Your task to perform on an android device: Add logitech g pro to the cart on walmart, then select checkout. Image 0: 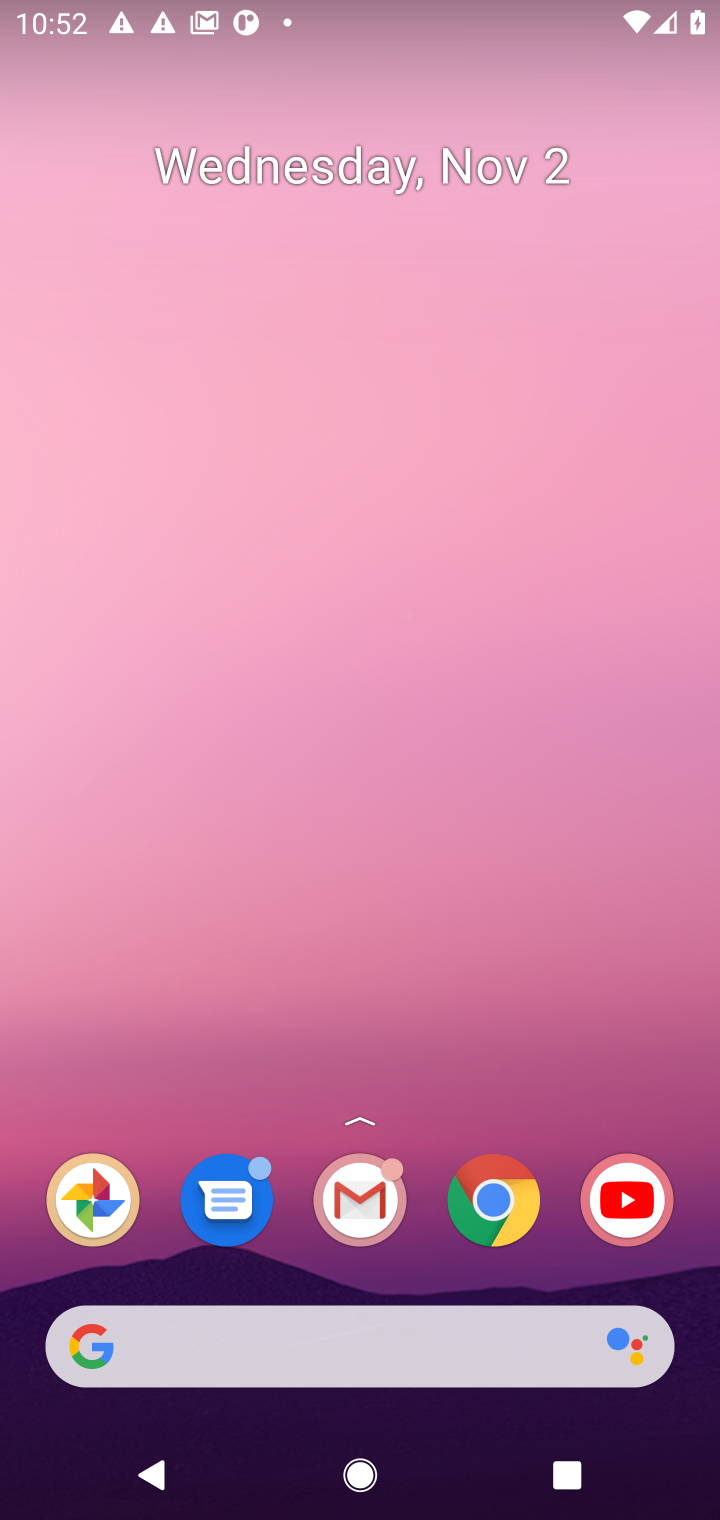
Step 0: click (499, 1172)
Your task to perform on an android device: Add logitech g pro to the cart on walmart, then select checkout. Image 1: 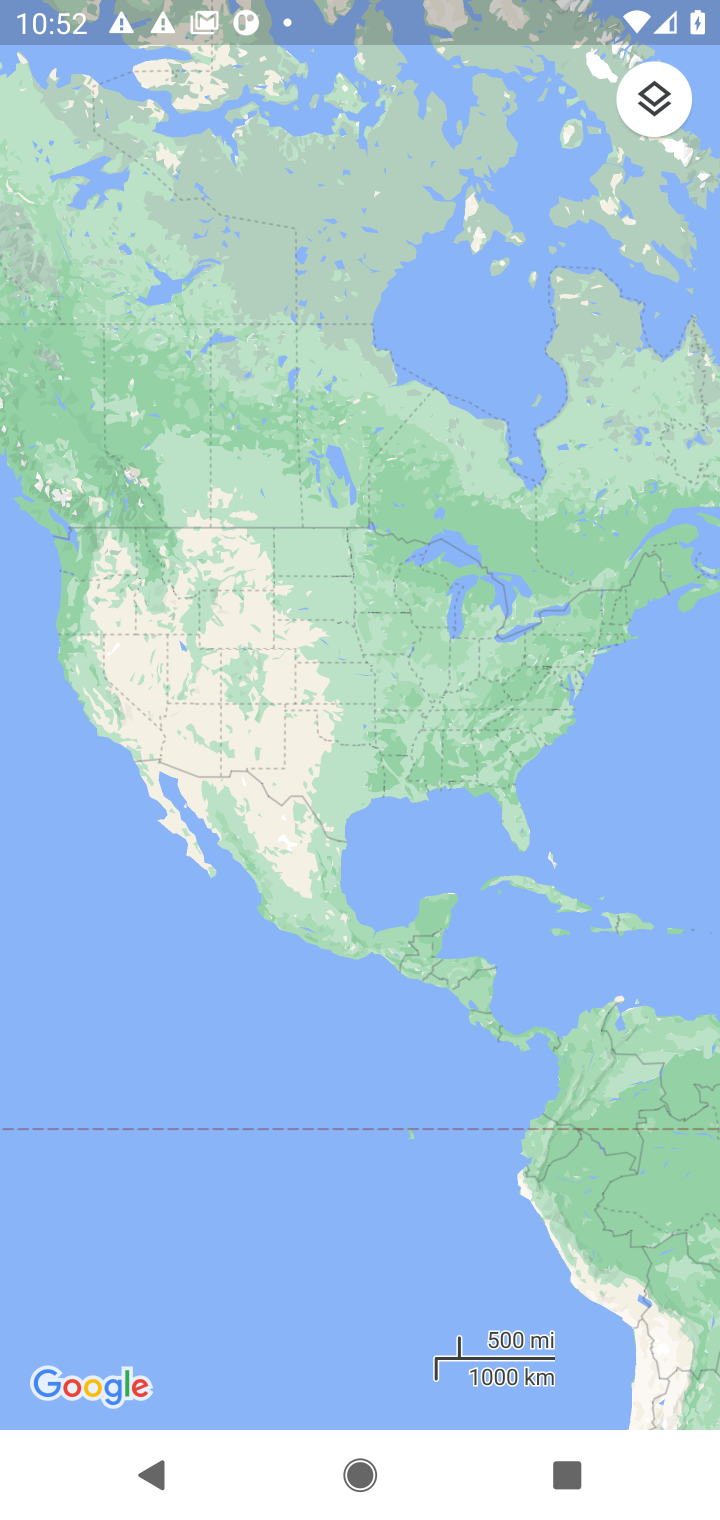
Step 1: press home button
Your task to perform on an android device: Add logitech g pro to the cart on walmart, then select checkout. Image 2: 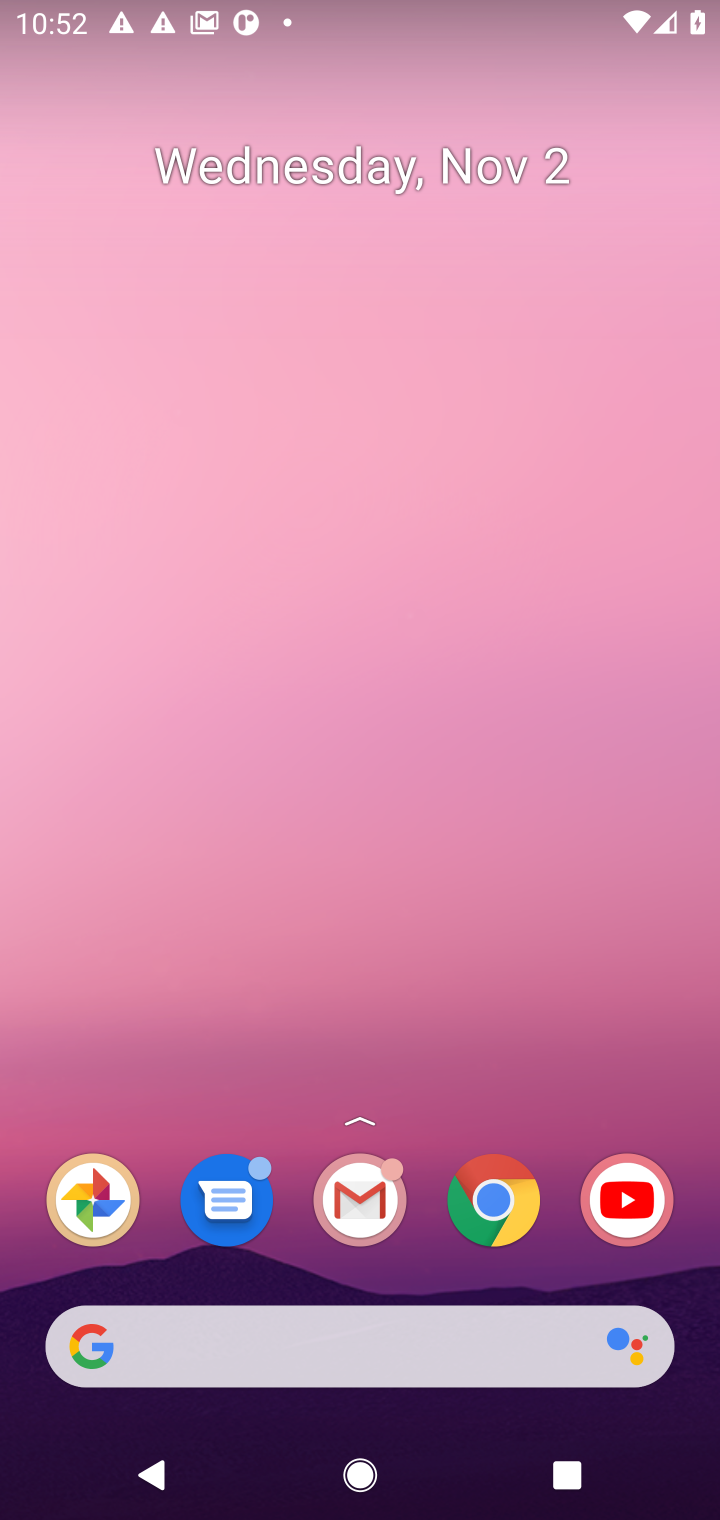
Step 2: click (519, 1178)
Your task to perform on an android device: Add logitech g pro to the cart on walmart, then select checkout. Image 3: 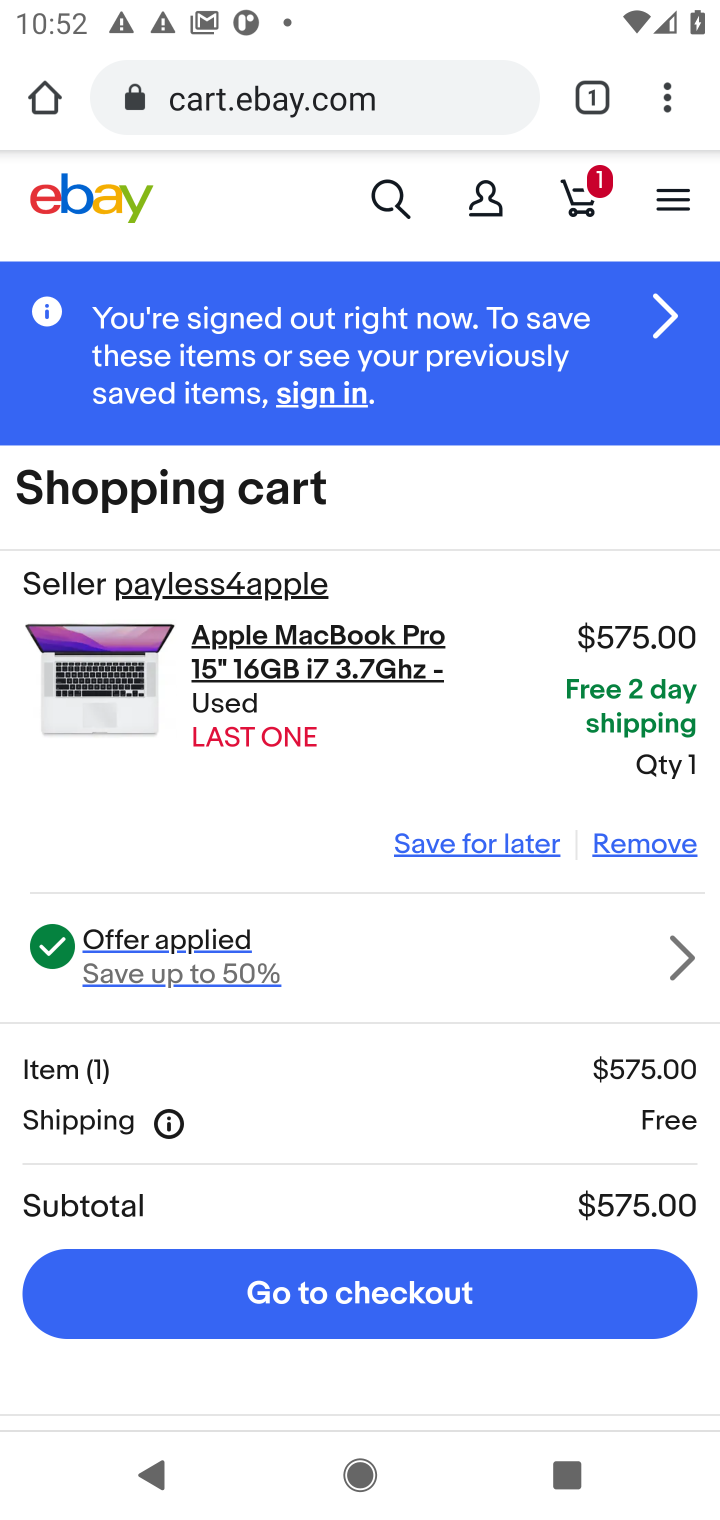
Step 3: click (445, 92)
Your task to perform on an android device: Add logitech g pro to the cart on walmart, then select checkout. Image 4: 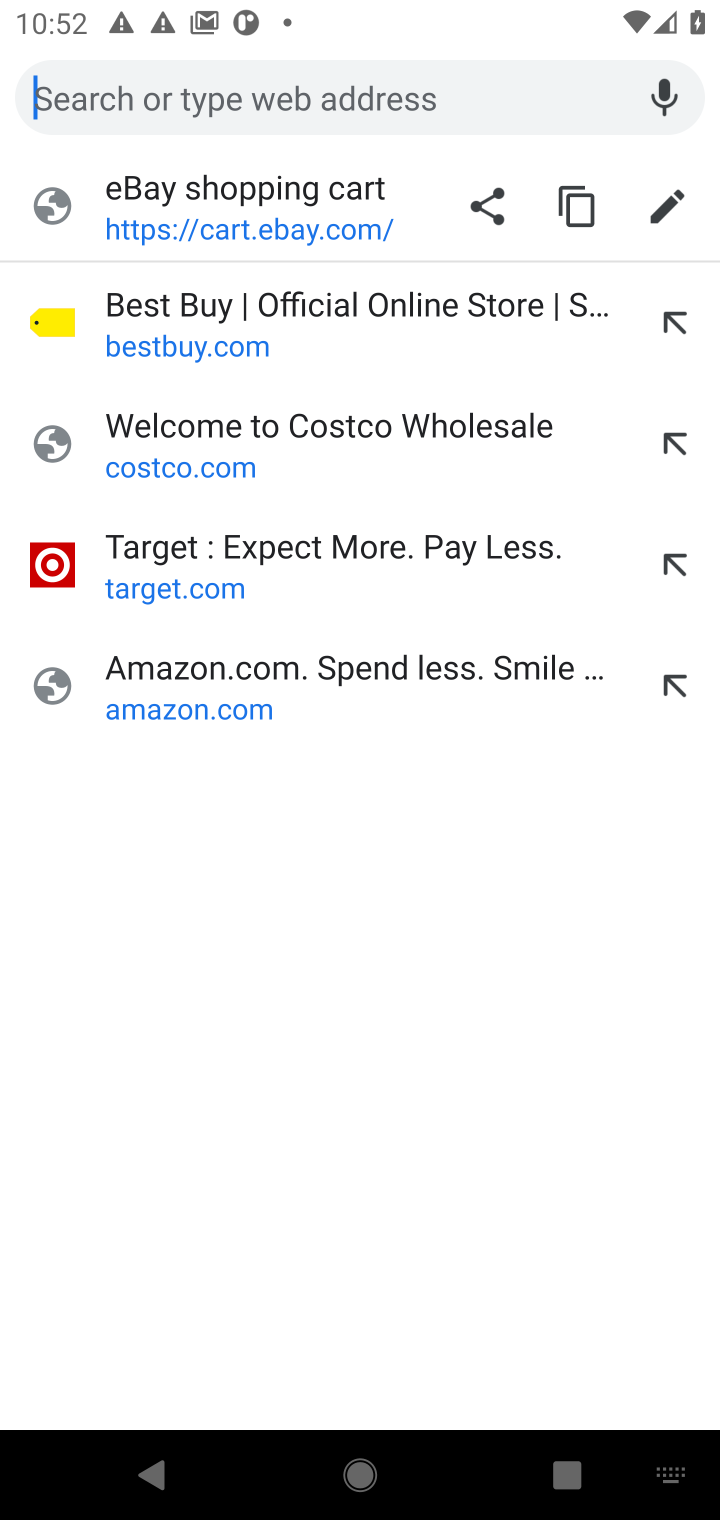
Step 4: type "walmart"
Your task to perform on an android device: Add logitech g pro to the cart on walmart, then select checkout. Image 5: 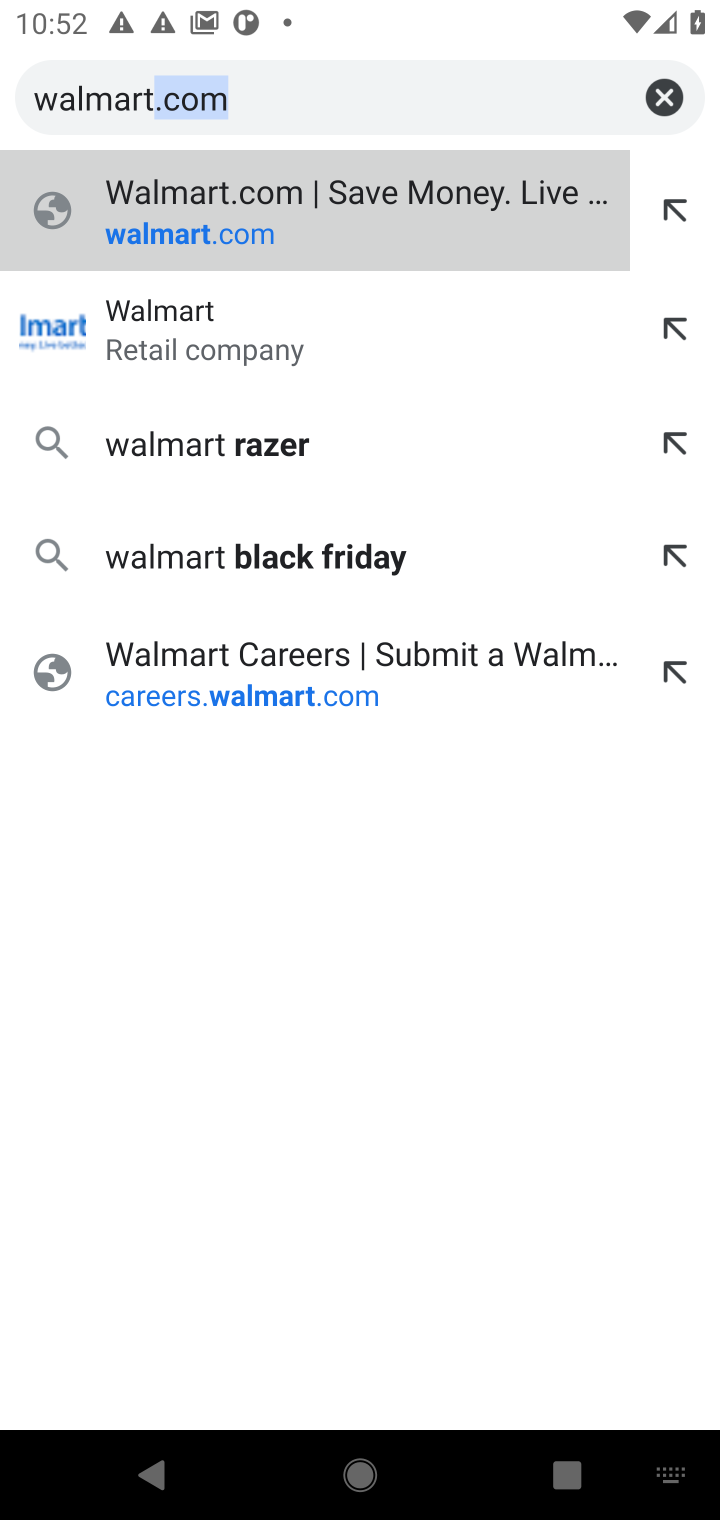
Step 5: press enter
Your task to perform on an android device: Add logitech g pro to the cart on walmart, then select checkout. Image 6: 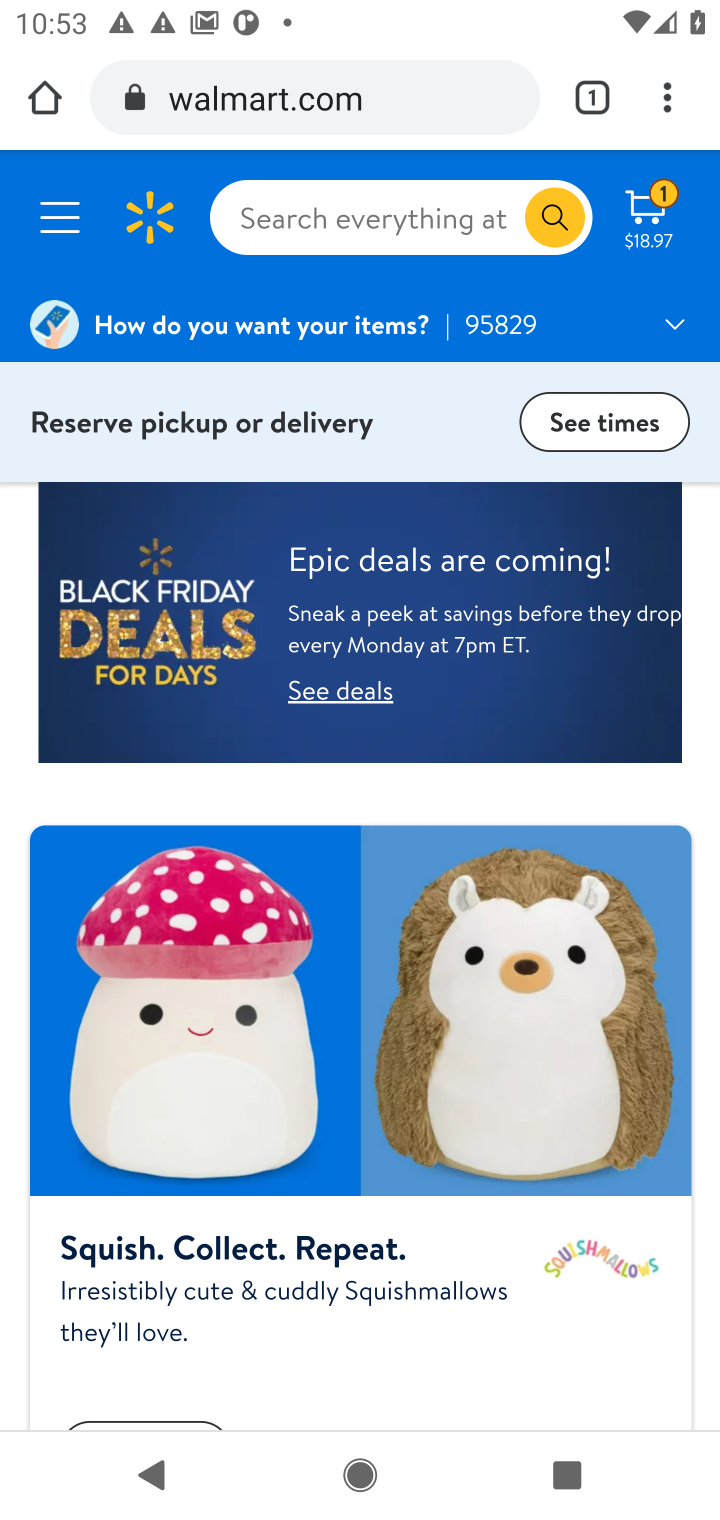
Step 6: click (396, 202)
Your task to perform on an android device: Add logitech g pro to the cart on walmart, then select checkout. Image 7: 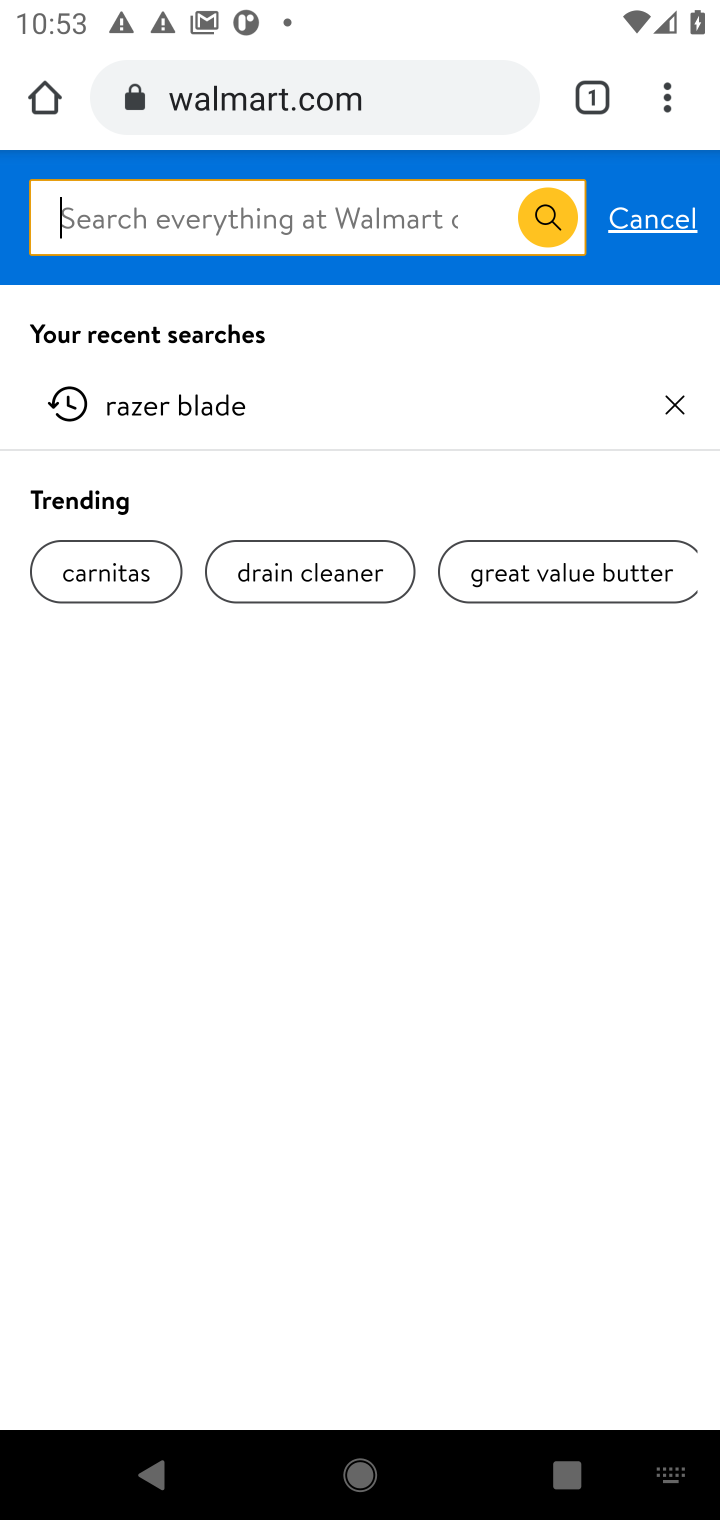
Step 7: press enter
Your task to perform on an android device: Add logitech g pro to the cart on walmart, then select checkout. Image 8: 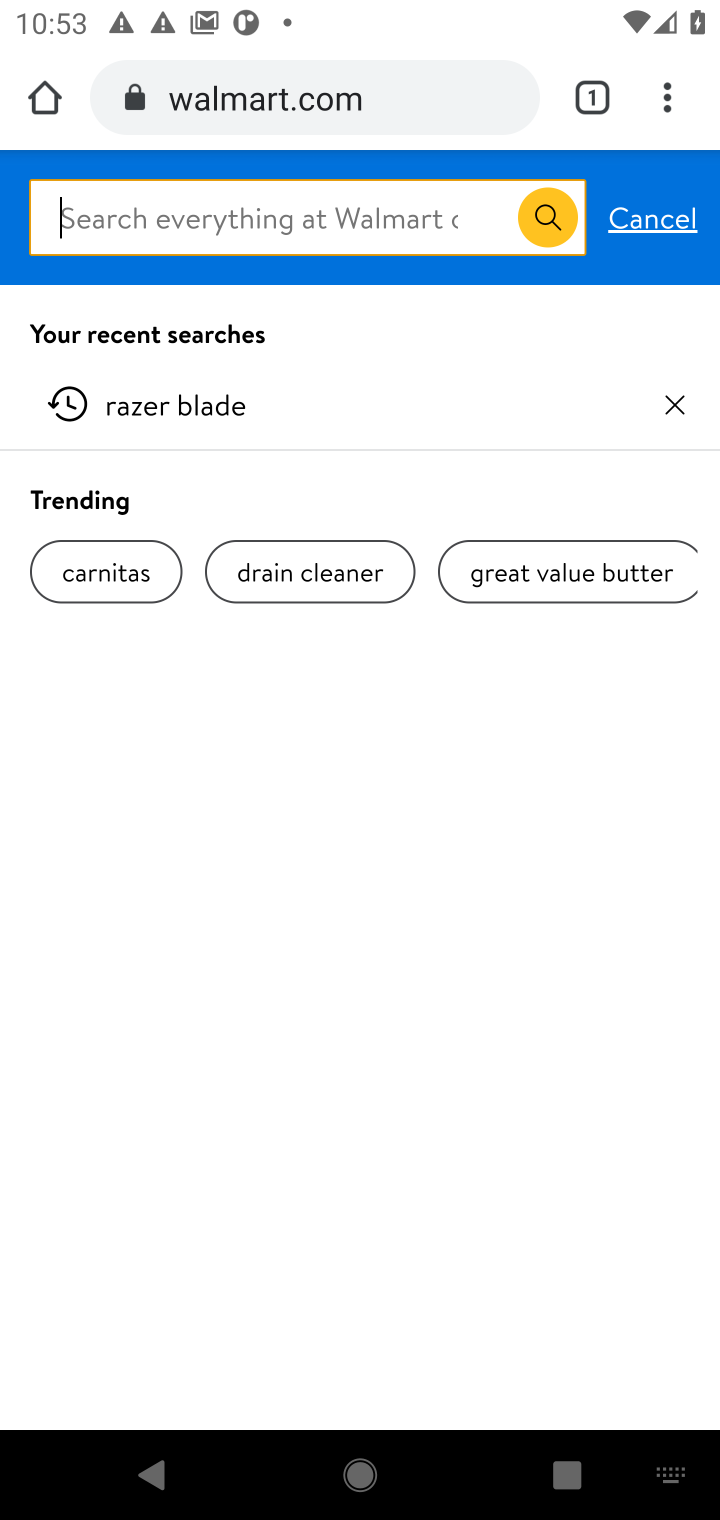
Step 8: type " logitech g pro"
Your task to perform on an android device: Add logitech g pro to the cart on walmart, then select checkout. Image 9: 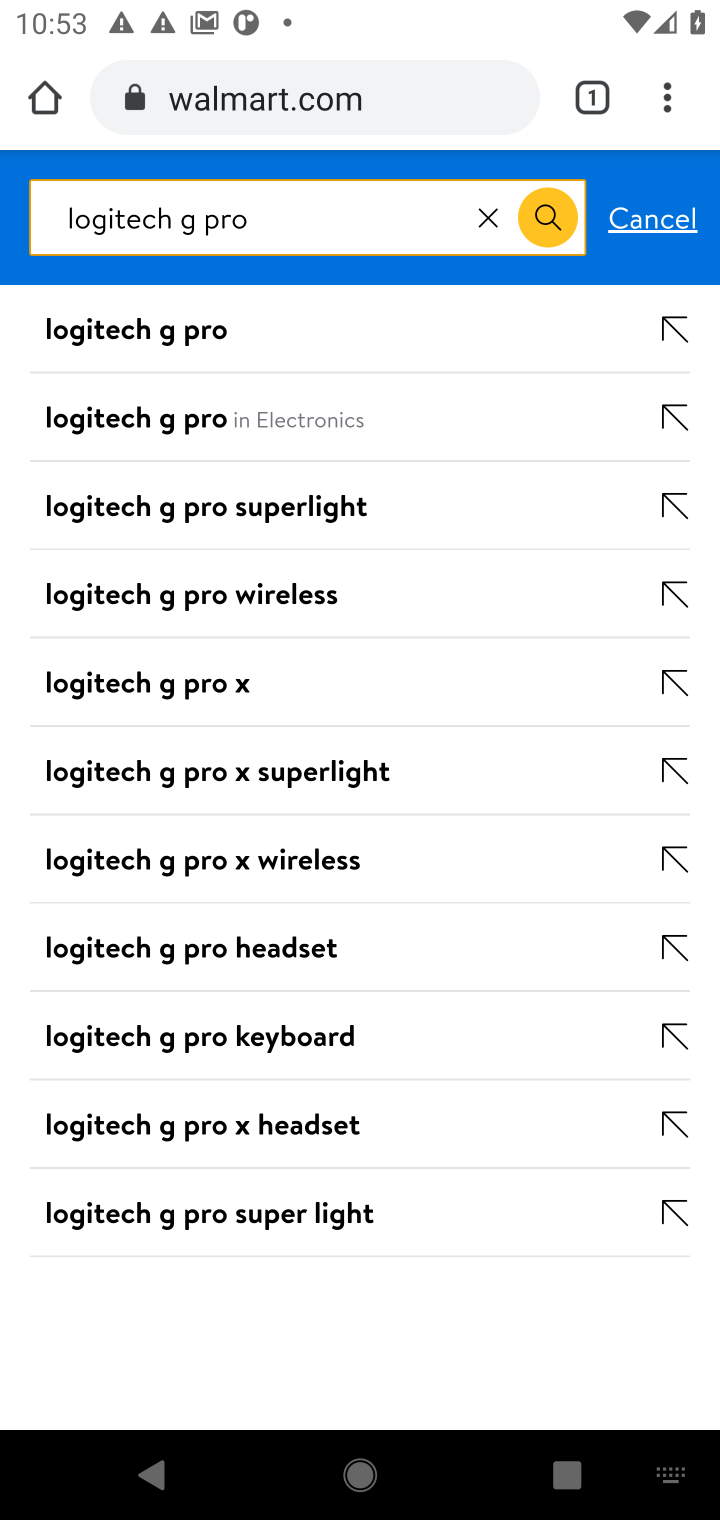
Step 9: click (188, 322)
Your task to perform on an android device: Add logitech g pro to the cart on walmart, then select checkout. Image 10: 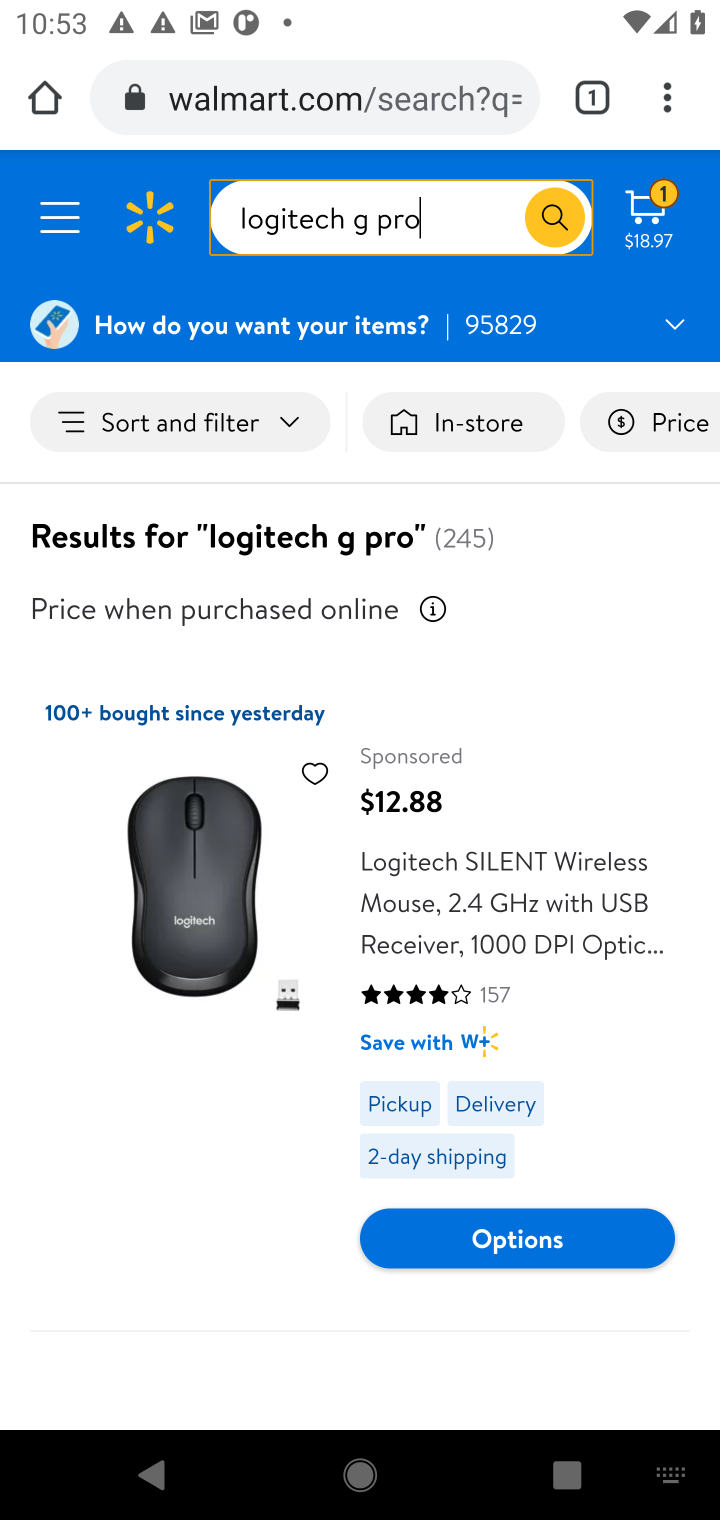
Step 10: drag from (266, 1096) to (468, 359)
Your task to perform on an android device: Add logitech g pro to the cart on walmart, then select checkout. Image 11: 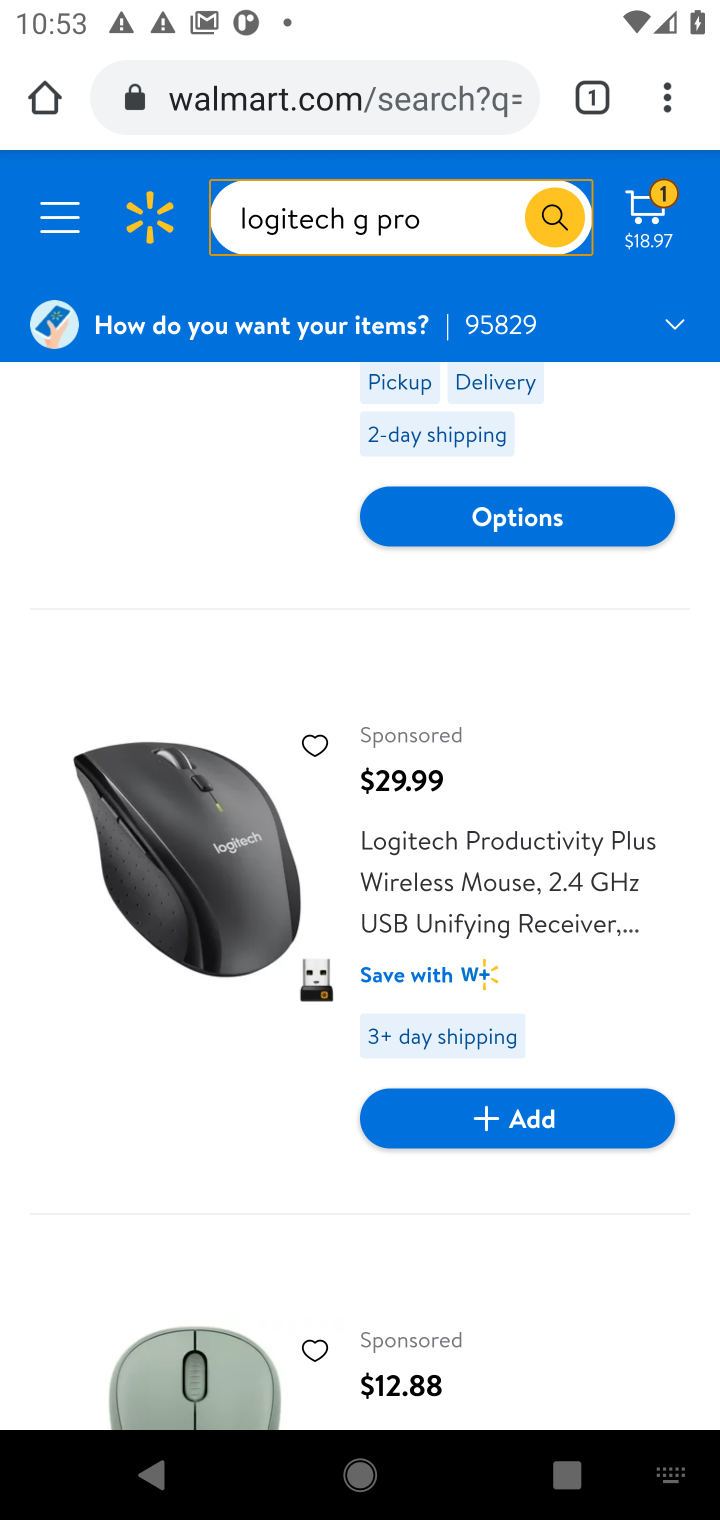
Step 11: drag from (513, 829) to (562, 416)
Your task to perform on an android device: Add logitech g pro to the cart on walmart, then select checkout. Image 12: 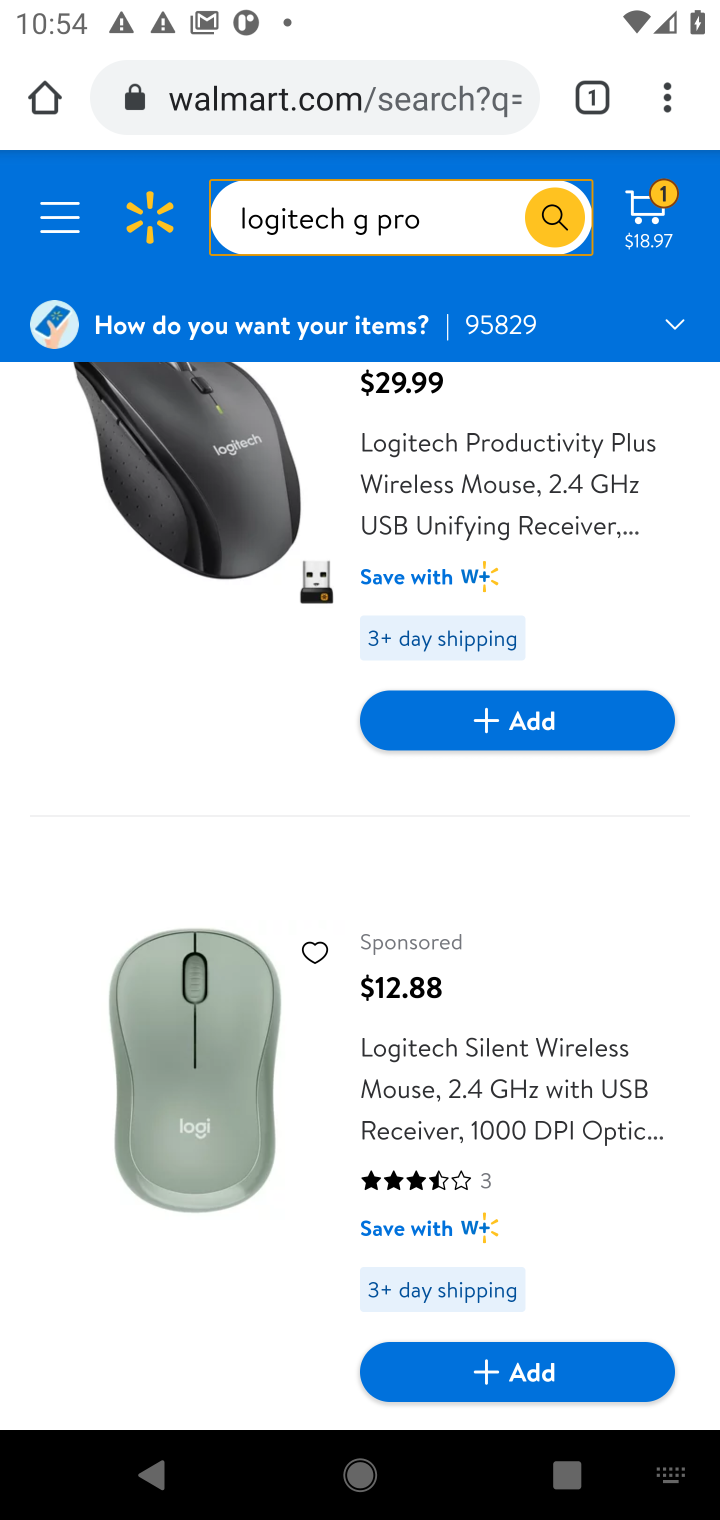
Step 12: drag from (557, 1153) to (651, 494)
Your task to perform on an android device: Add logitech g pro to the cart on walmart, then select checkout. Image 13: 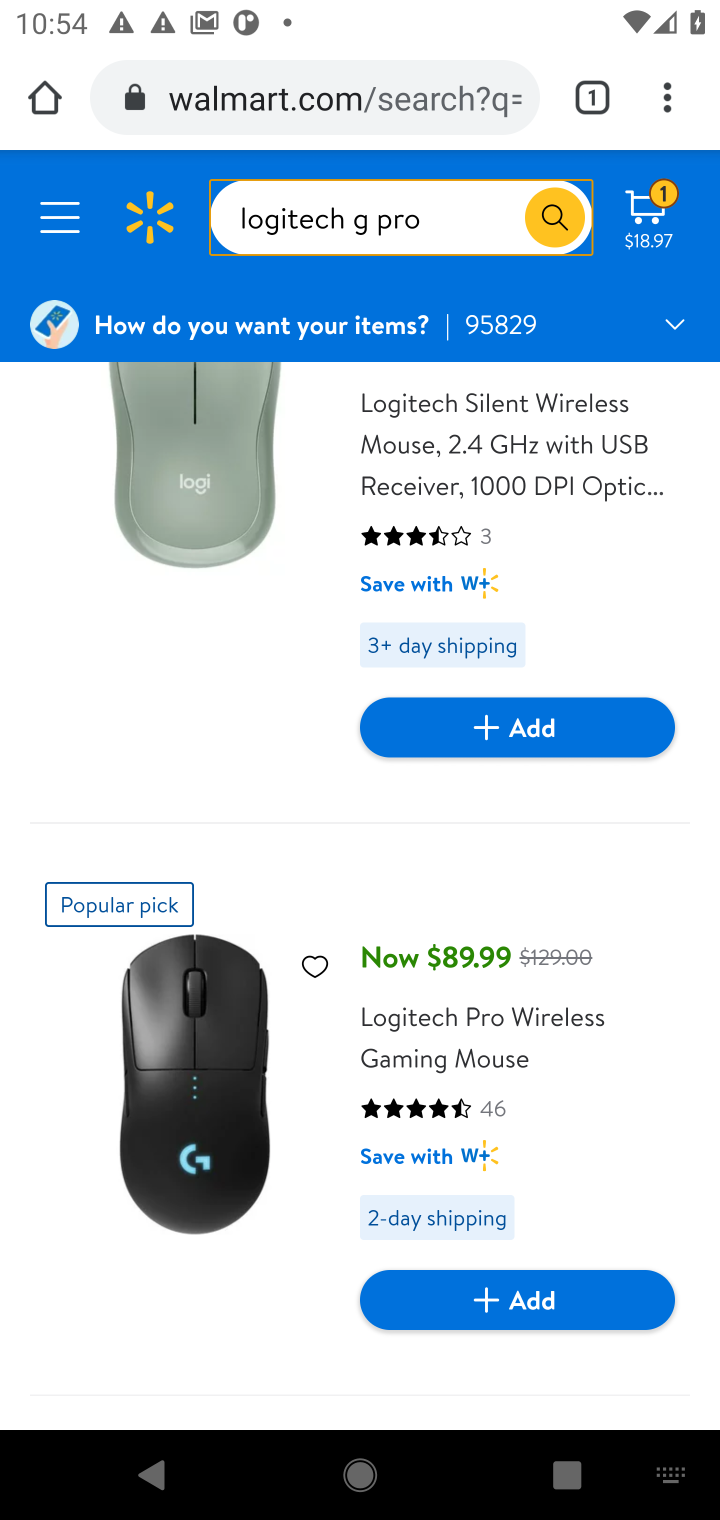
Step 13: drag from (587, 1017) to (623, 490)
Your task to perform on an android device: Add logitech g pro to the cart on walmart, then select checkout. Image 14: 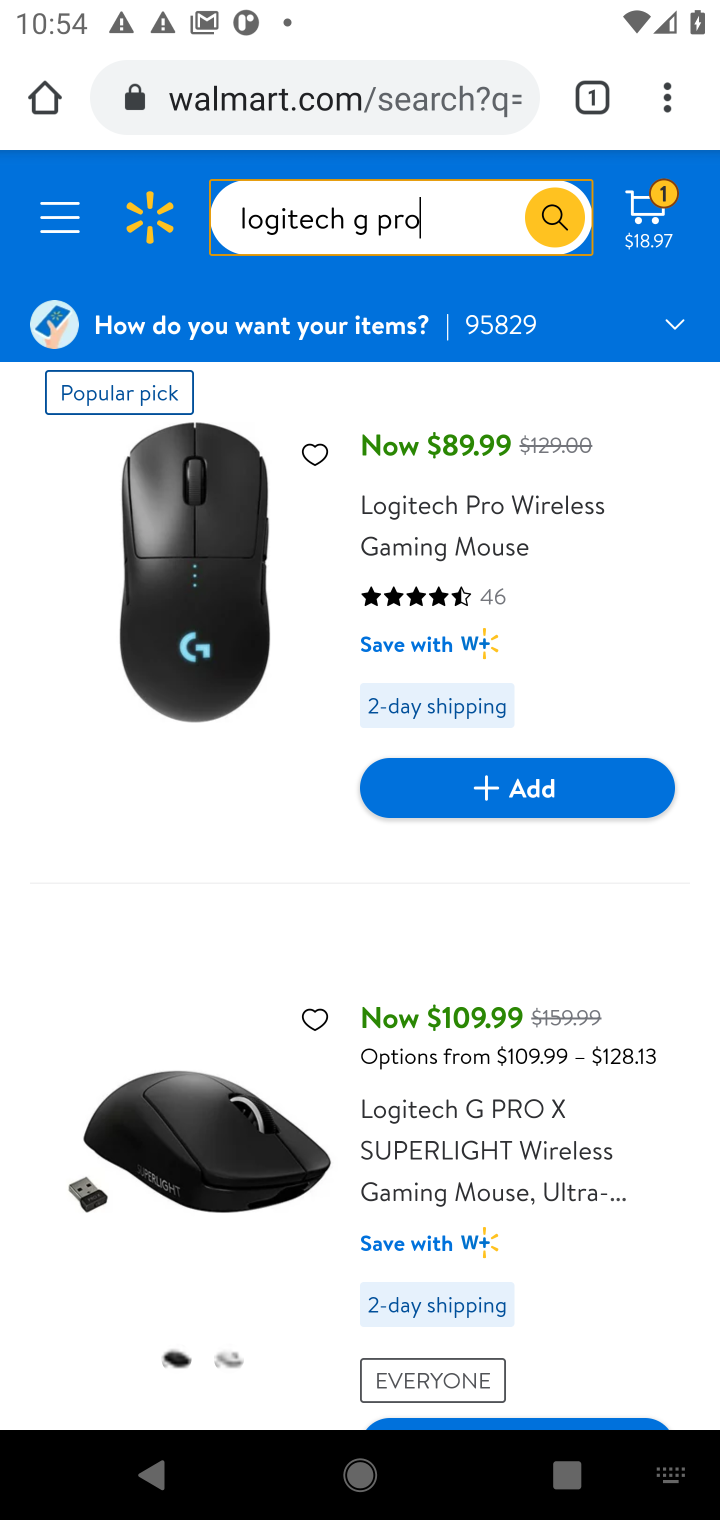
Step 14: click (179, 1126)
Your task to perform on an android device: Add logitech g pro to the cart on walmart, then select checkout. Image 15: 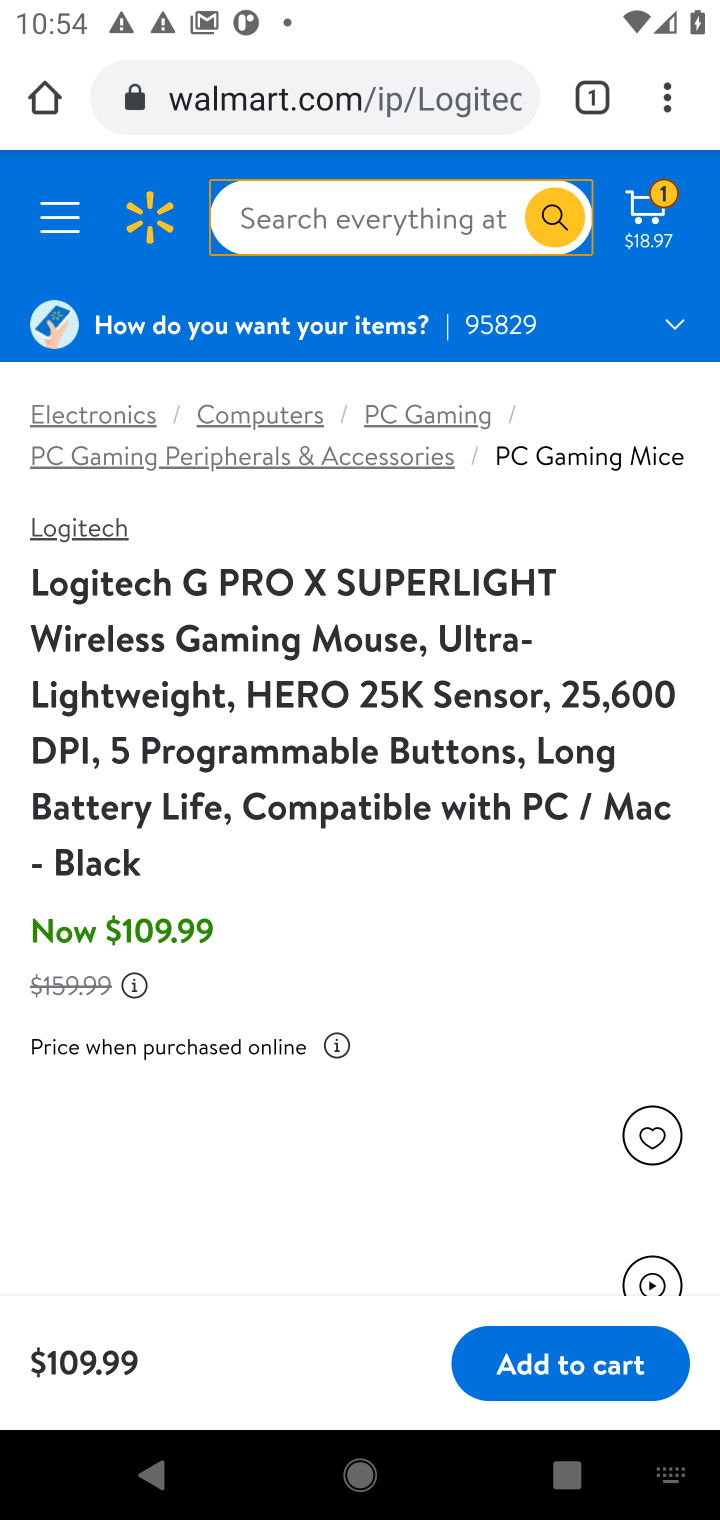
Step 15: click (546, 1351)
Your task to perform on an android device: Add logitech g pro to the cart on walmart, then select checkout. Image 16: 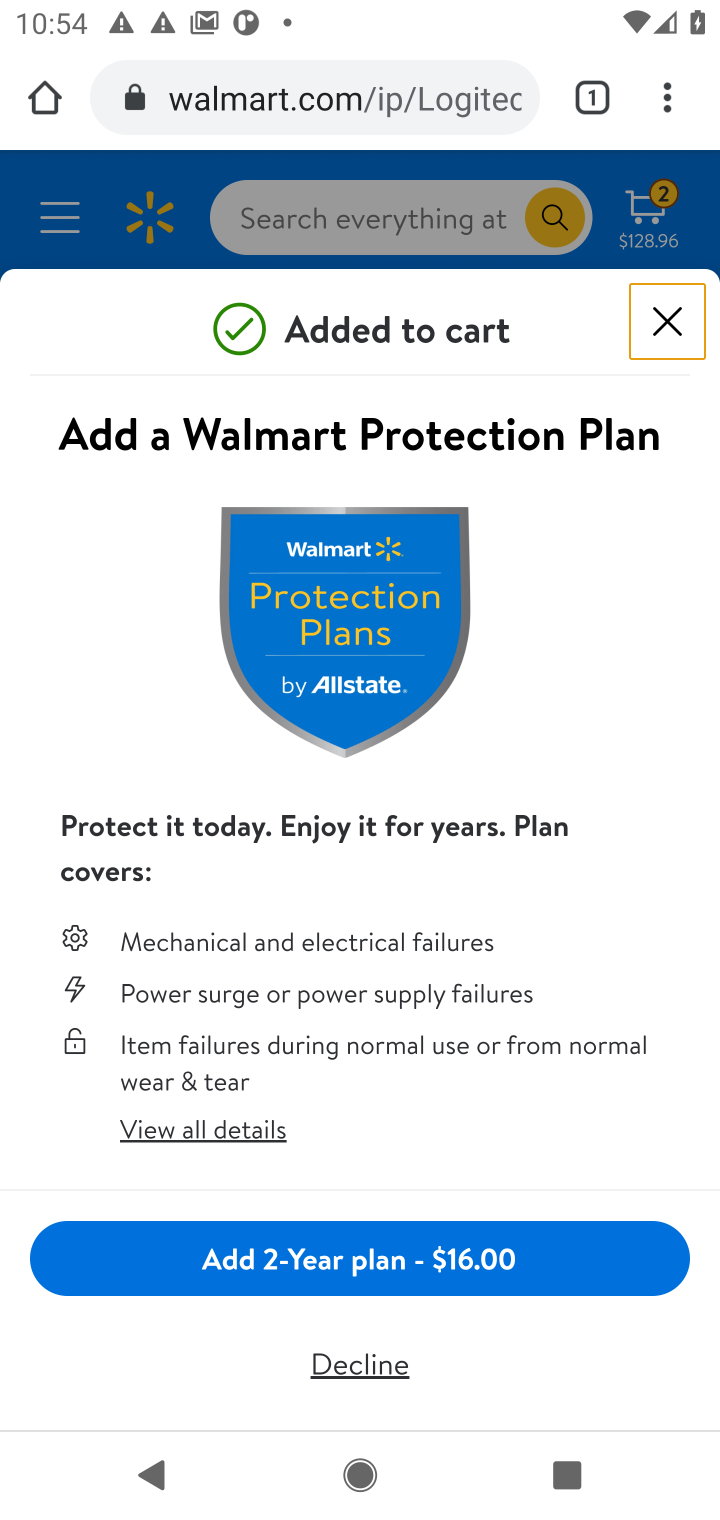
Step 16: click (681, 335)
Your task to perform on an android device: Add logitech g pro to the cart on walmart, then select checkout. Image 17: 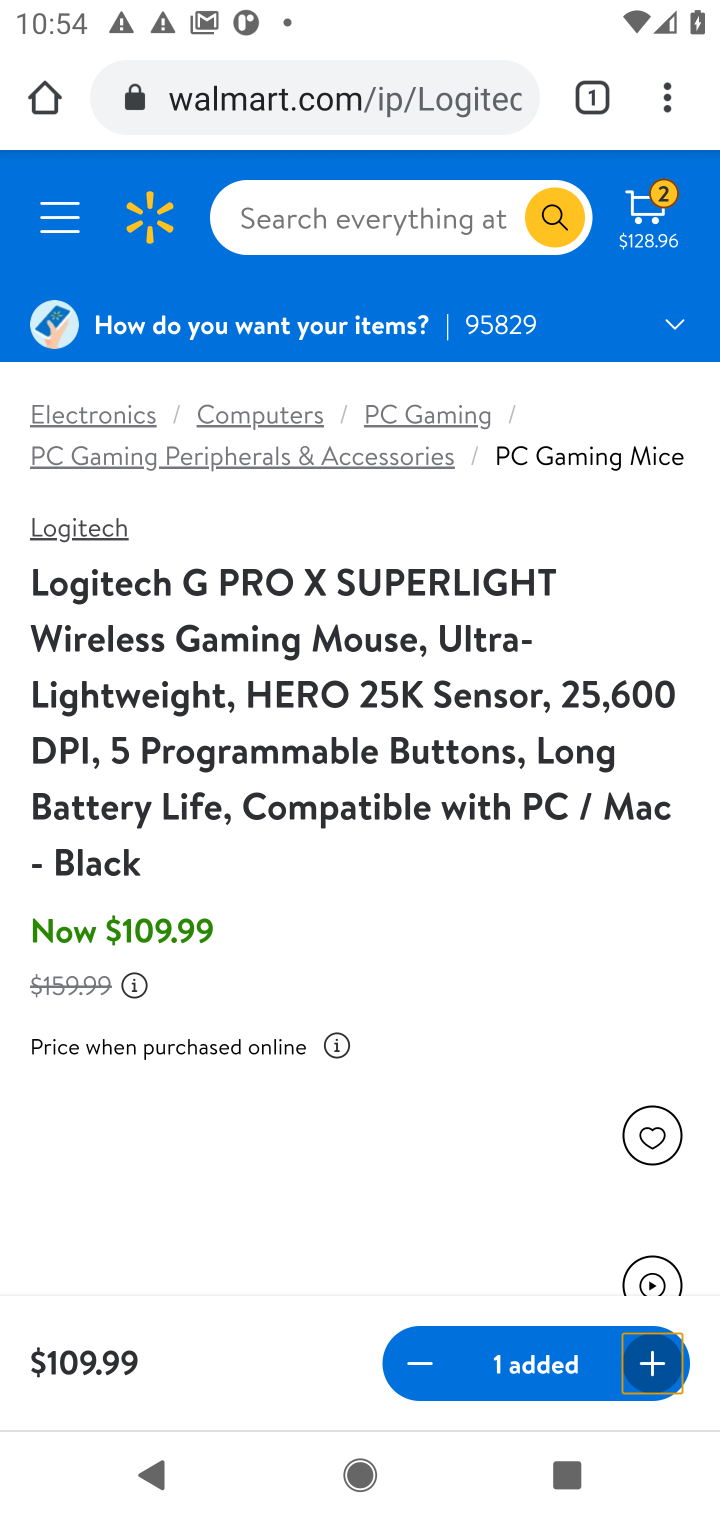
Step 17: click (654, 219)
Your task to perform on an android device: Add logitech g pro to the cart on walmart, then select checkout. Image 18: 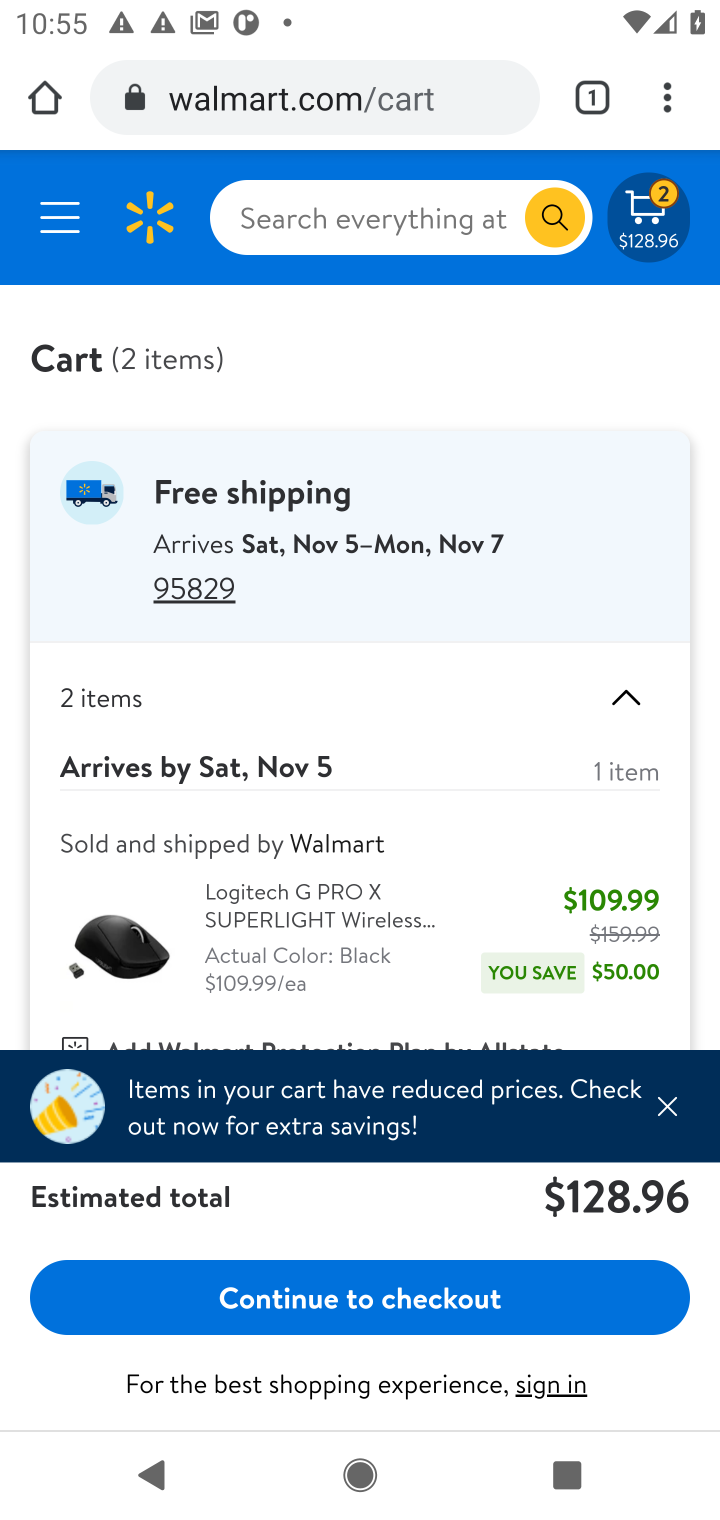
Step 18: click (500, 1305)
Your task to perform on an android device: Add logitech g pro to the cart on walmart, then select checkout. Image 19: 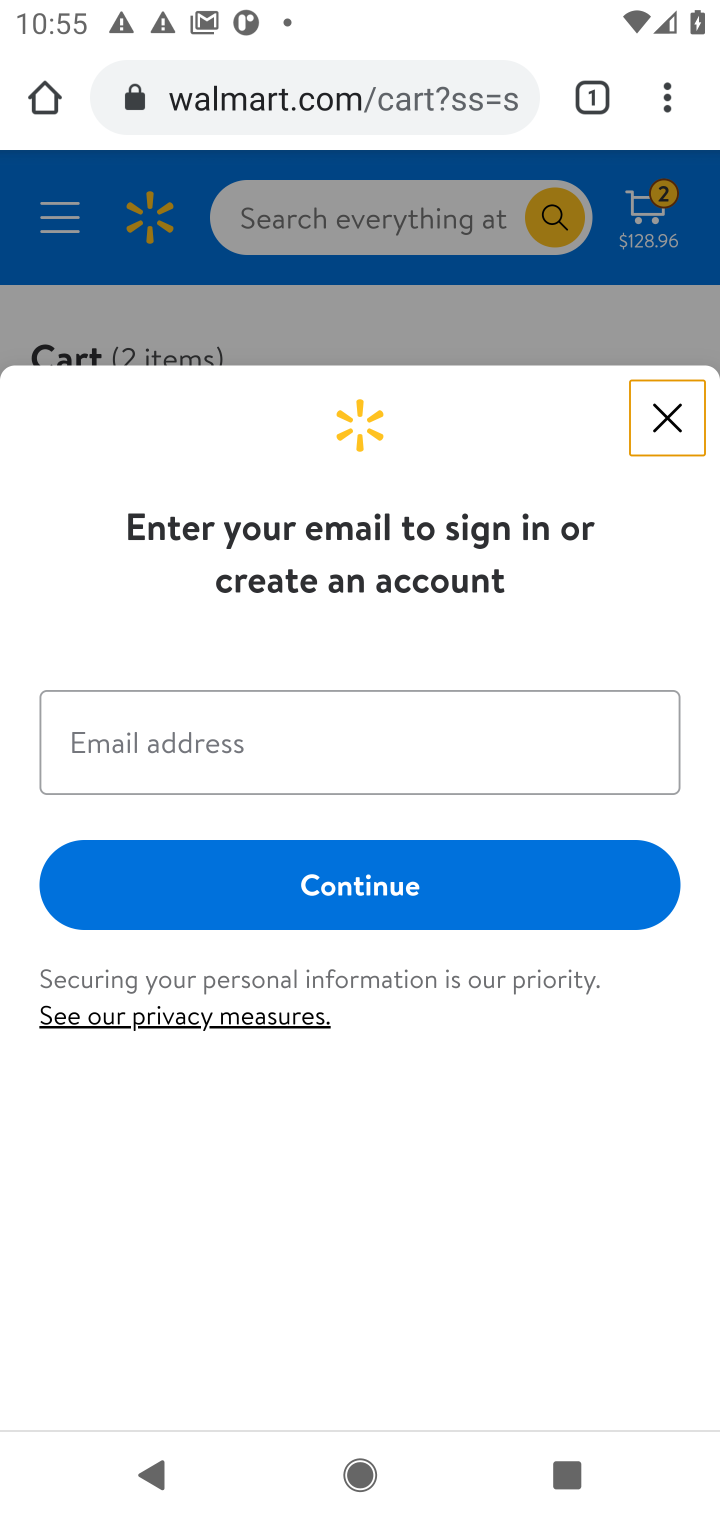
Step 19: click (678, 437)
Your task to perform on an android device: Add logitech g pro to the cart on walmart, then select checkout. Image 20: 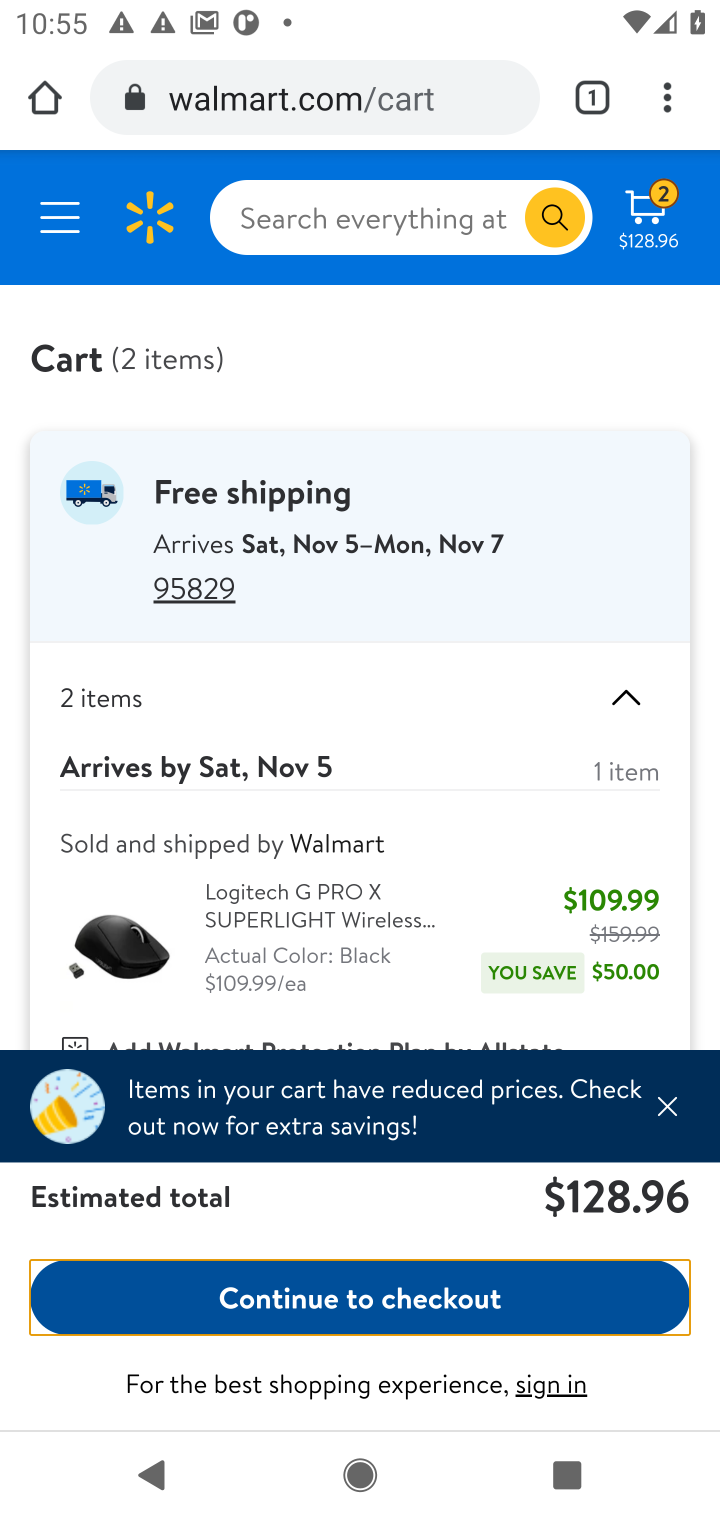
Step 20: click (522, 1294)
Your task to perform on an android device: Add logitech g pro to the cart on walmart, then select checkout. Image 21: 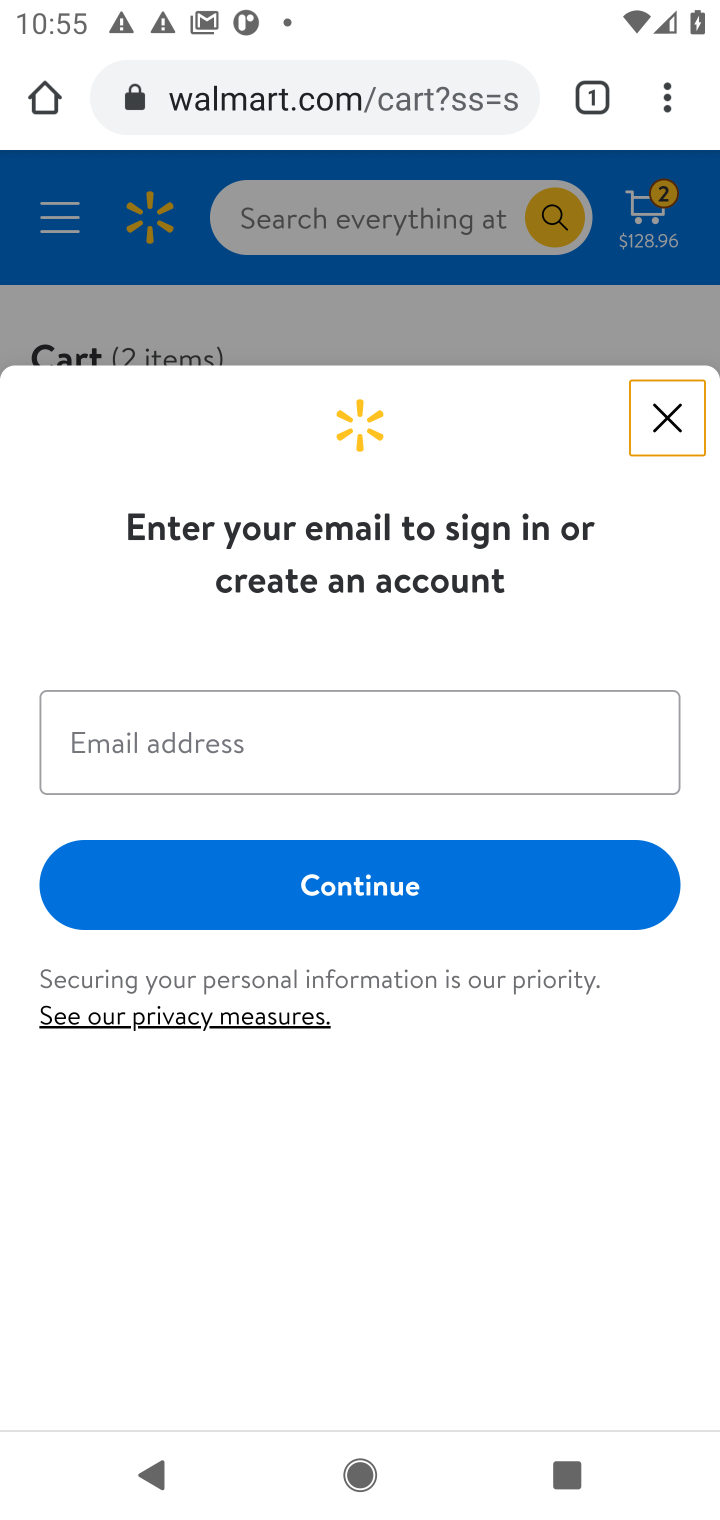
Step 21: task complete